Your task to perform on an android device: What's the weather going to be this weekend? Image 0: 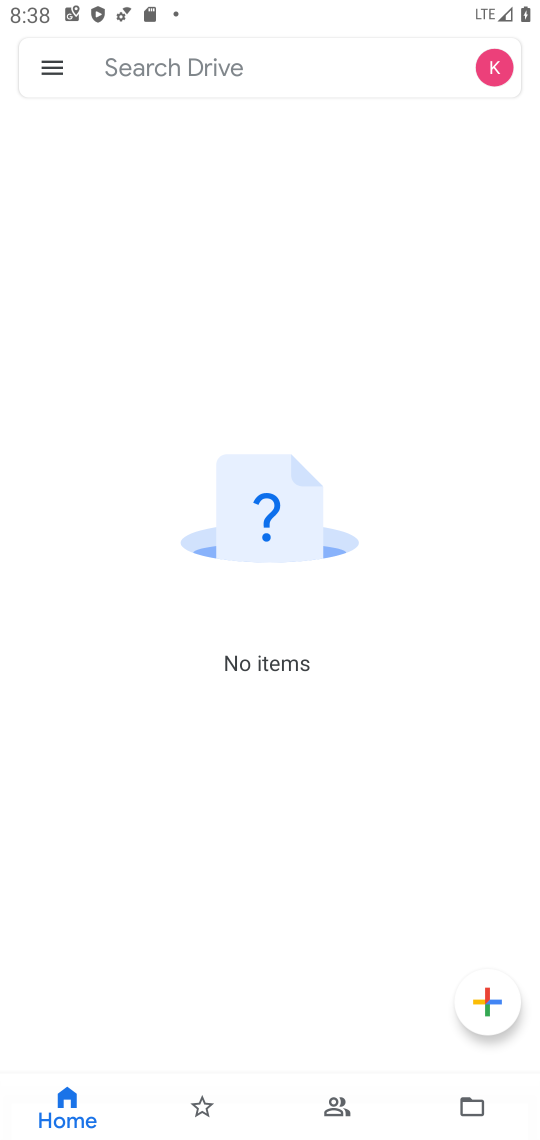
Step 0: press home button
Your task to perform on an android device: What's the weather going to be this weekend? Image 1: 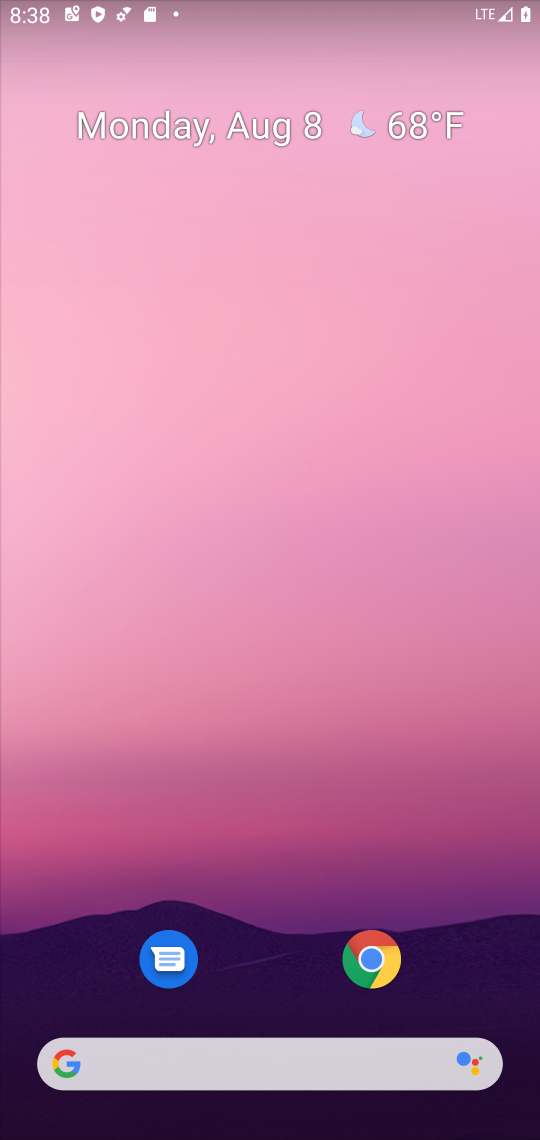
Step 1: drag from (515, 986) to (291, 98)
Your task to perform on an android device: What's the weather going to be this weekend? Image 2: 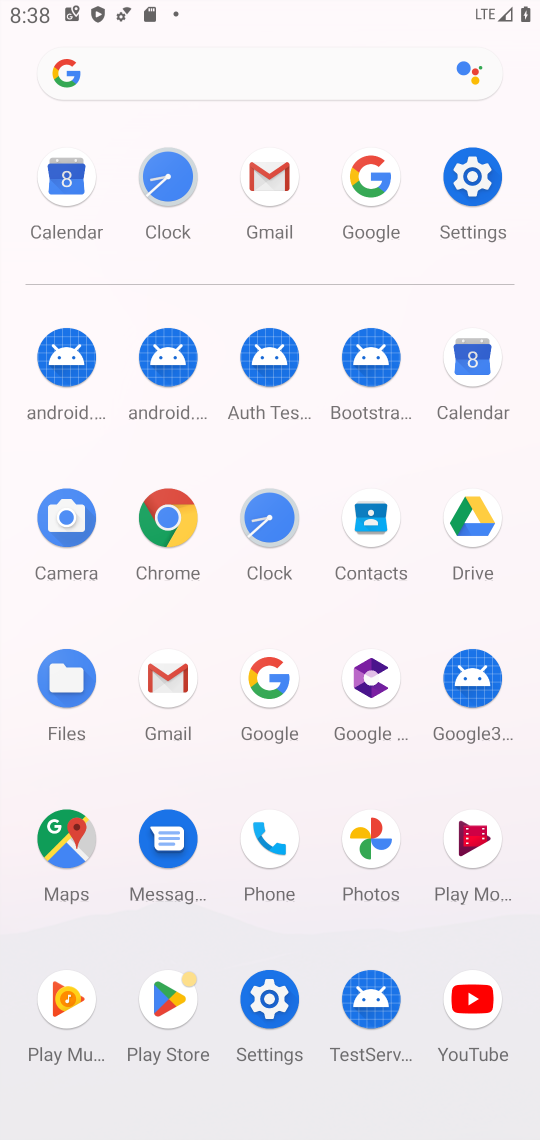
Step 2: click (270, 686)
Your task to perform on an android device: What's the weather going to be this weekend? Image 3: 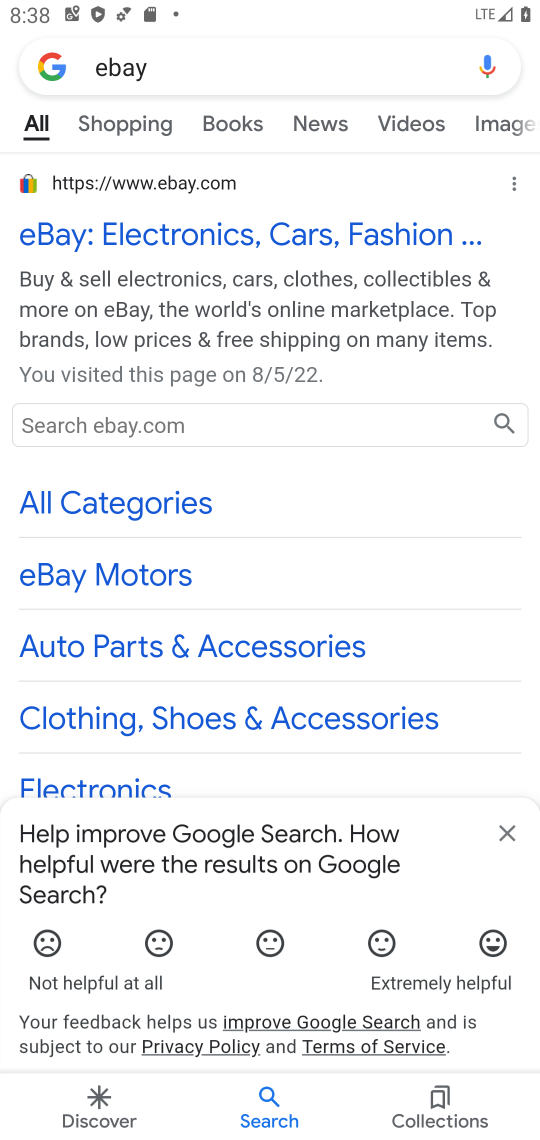
Step 3: press back button
Your task to perform on an android device: What's the weather going to be this weekend? Image 4: 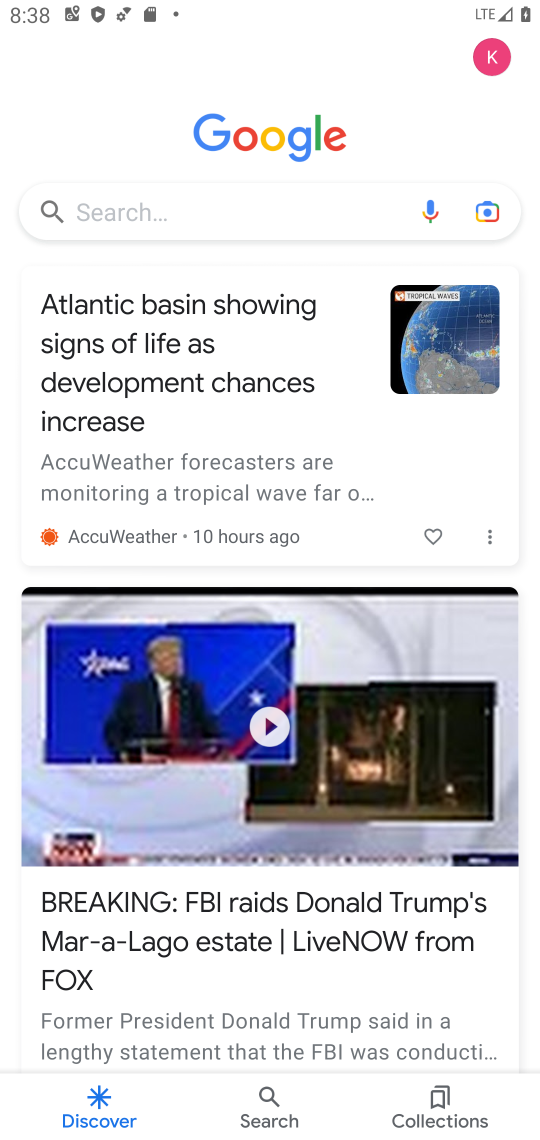
Step 4: click (191, 216)
Your task to perform on an android device: What's the weather going to be this weekend? Image 5: 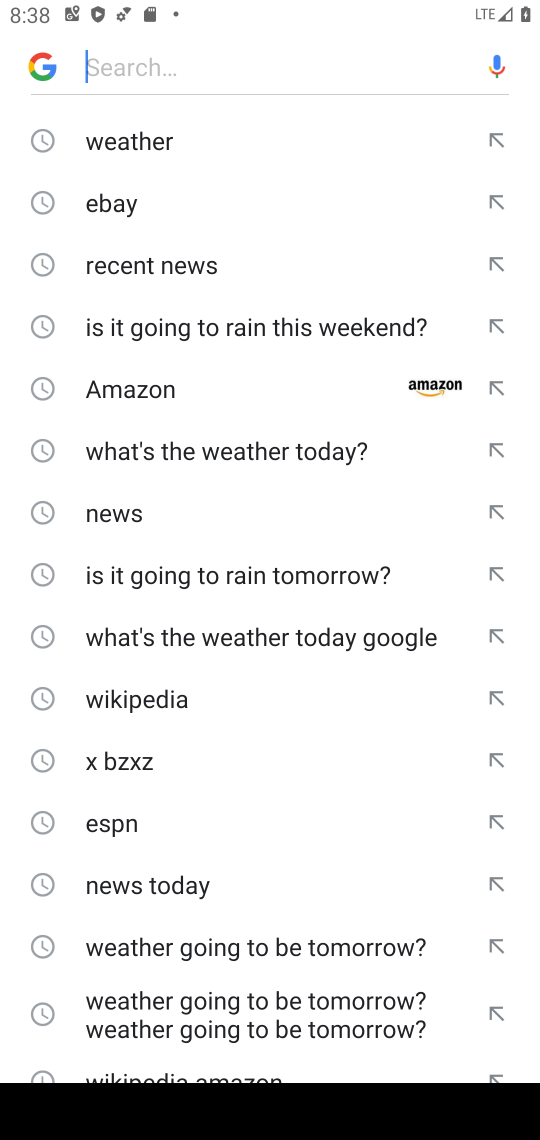
Step 5: drag from (294, 995) to (278, 179)
Your task to perform on an android device: What's the weather going to be this weekend? Image 6: 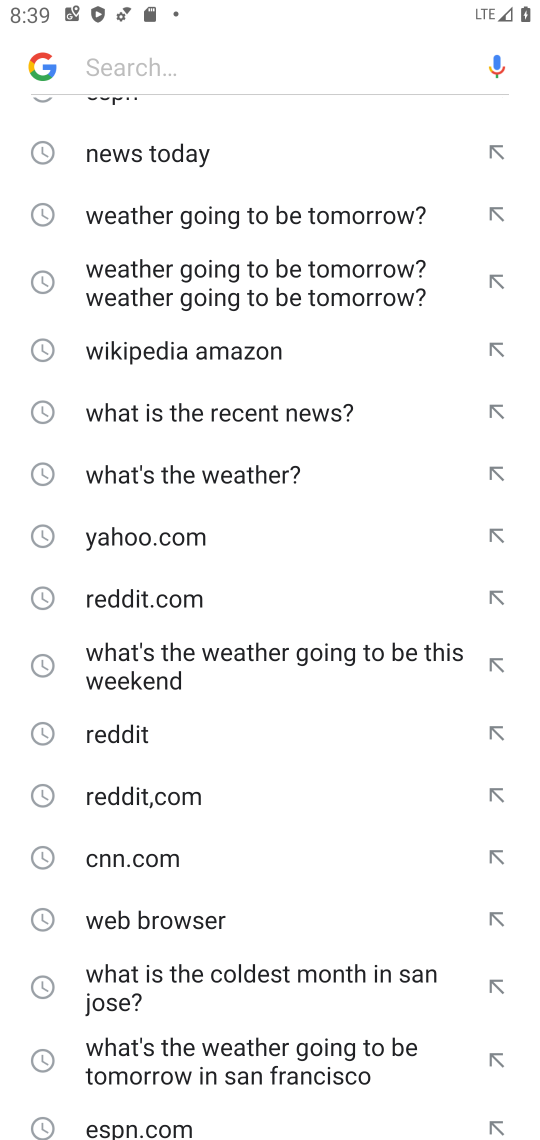
Step 6: drag from (215, 1001) to (246, 746)
Your task to perform on an android device: What's the weather going to be this weekend? Image 7: 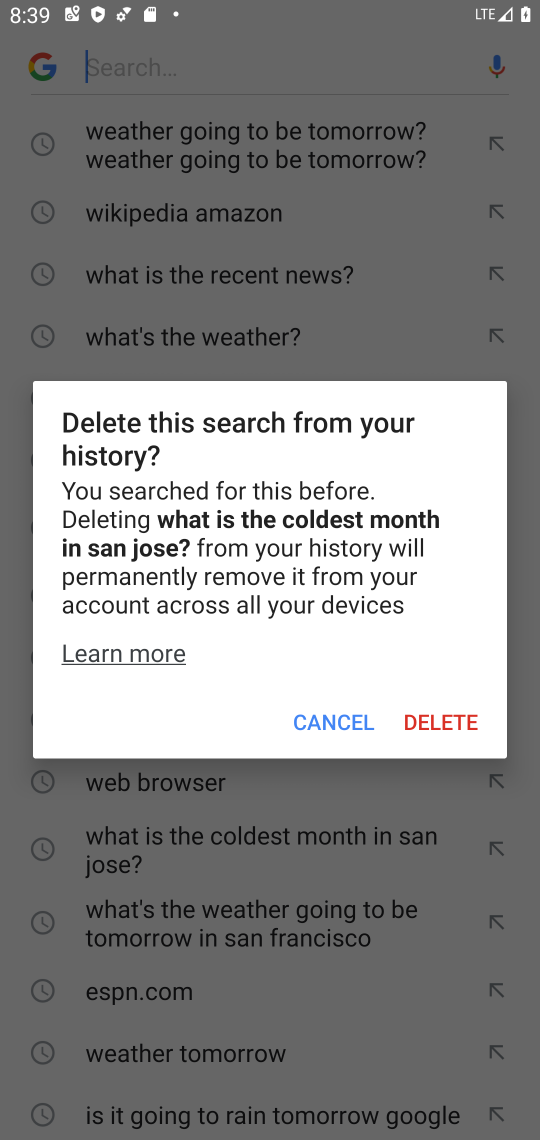
Step 7: click (326, 716)
Your task to perform on an android device: What's the weather going to be this weekend? Image 8: 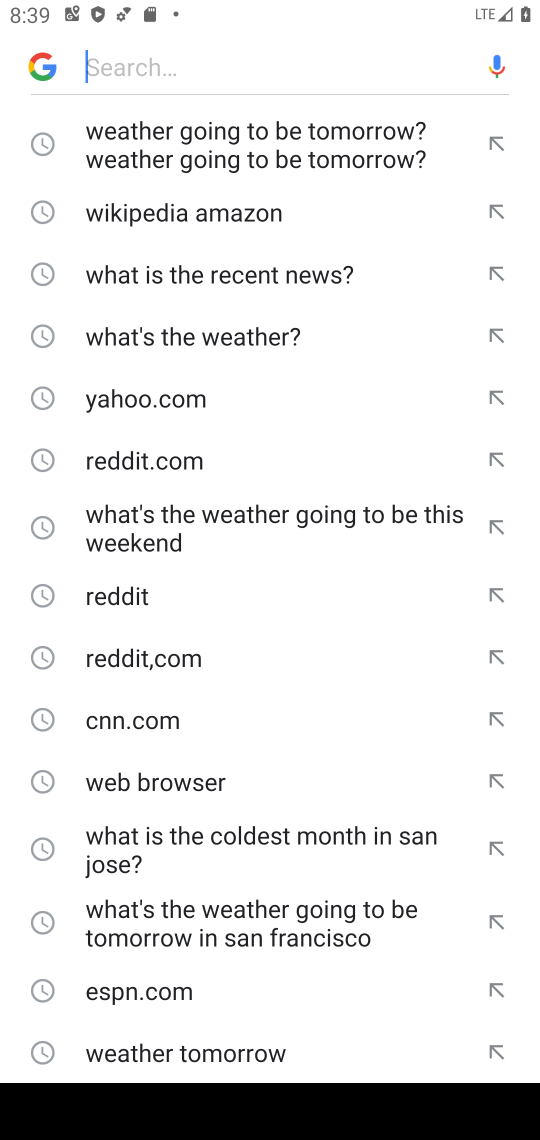
Step 8: click (263, 528)
Your task to perform on an android device: What's the weather going to be this weekend? Image 9: 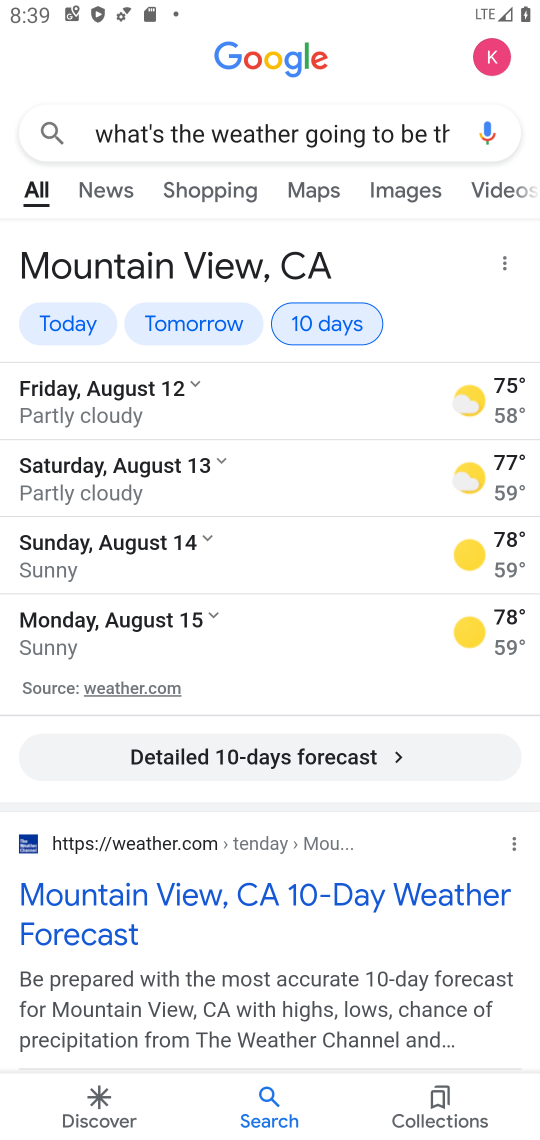
Step 9: task complete